Your task to perform on an android device: Go to accessibility settings Image 0: 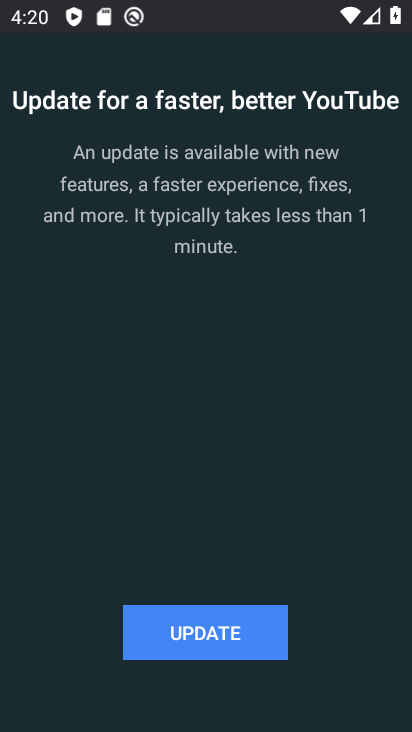
Step 0: press back button
Your task to perform on an android device: Go to accessibility settings Image 1: 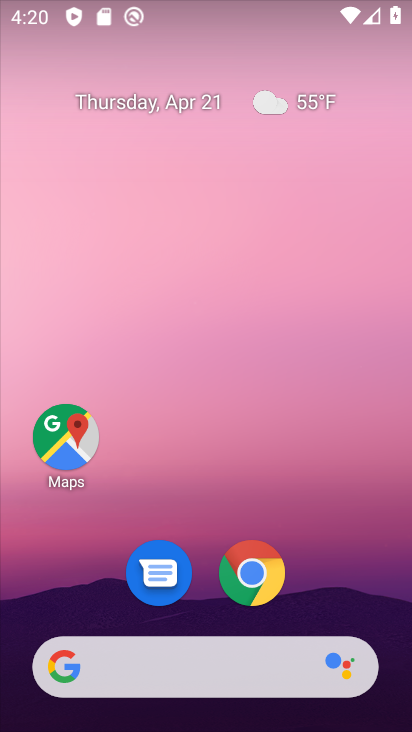
Step 1: drag from (376, 614) to (268, 122)
Your task to perform on an android device: Go to accessibility settings Image 2: 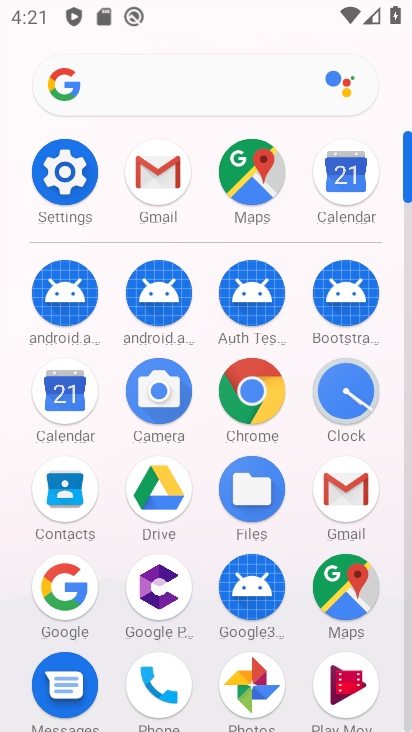
Step 2: click (409, 694)
Your task to perform on an android device: Go to accessibility settings Image 3: 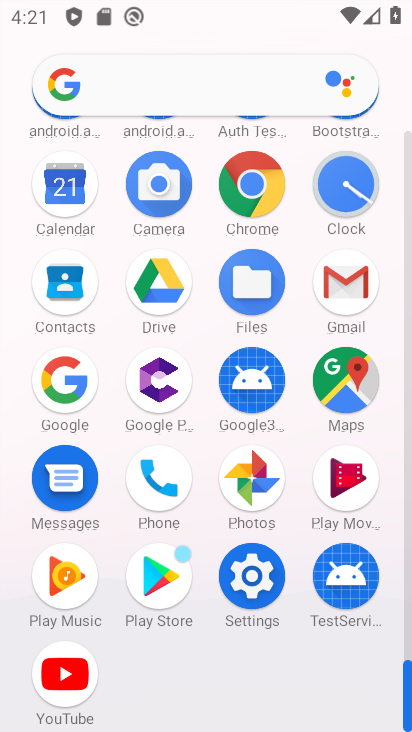
Step 3: click (253, 577)
Your task to perform on an android device: Go to accessibility settings Image 4: 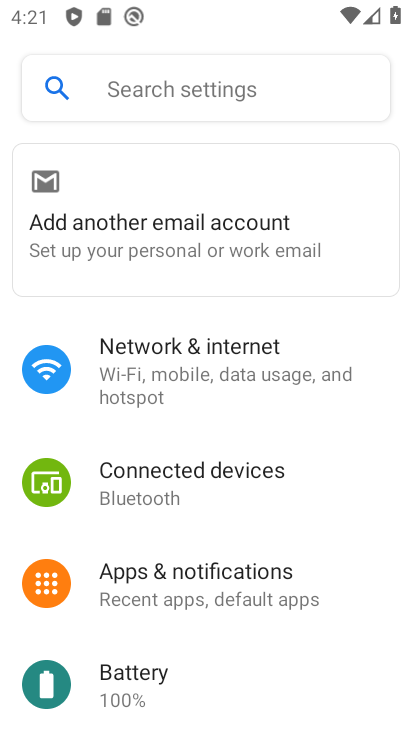
Step 4: drag from (336, 579) to (307, 245)
Your task to perform on an android device: Go to accessibility settings Image 5: 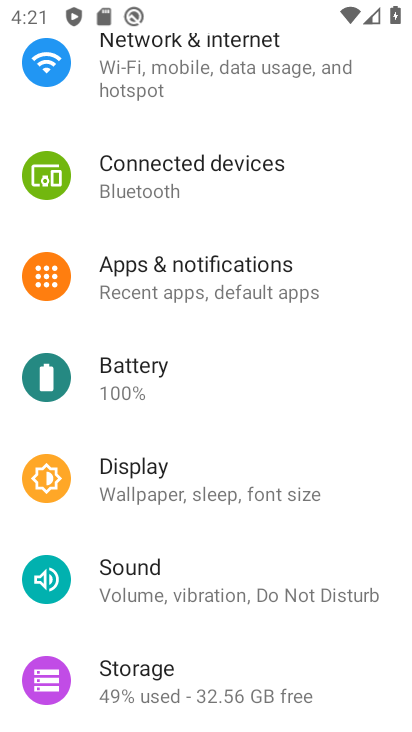
Step 5: drag from (326, 526) to (326, 326)
Your task to perform on an android device: Go to accessibility settings Image 6: 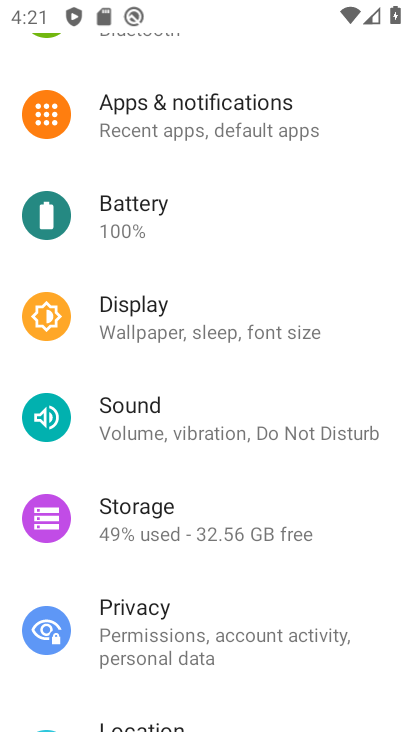
Step 6: drag from (339, 555) to (333, 291)
Your task to perform on an android device: Go to accessibility settings Image 7: 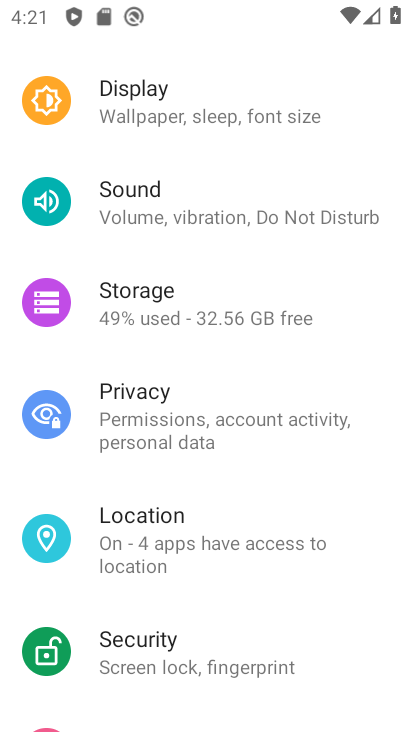
Step 7: drag from (318, 513) to (329, 256)
Your task to perform on an android device: Go to accessibility settings Image 8: 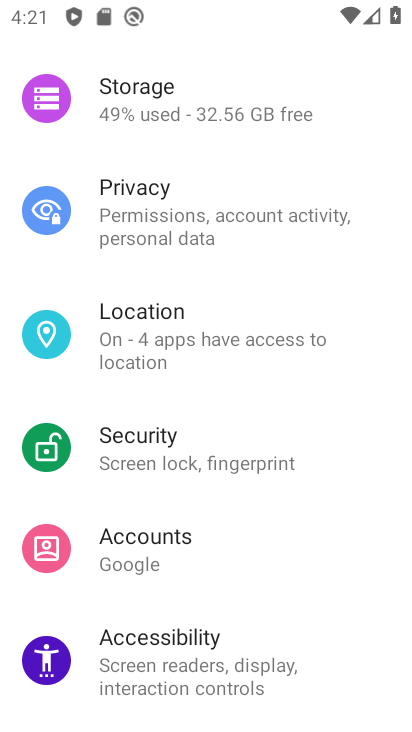
Step 8: drag from (311, 526) to (316, 280)
Your task to perform on an android device: Go to accessibility settings Image 9: 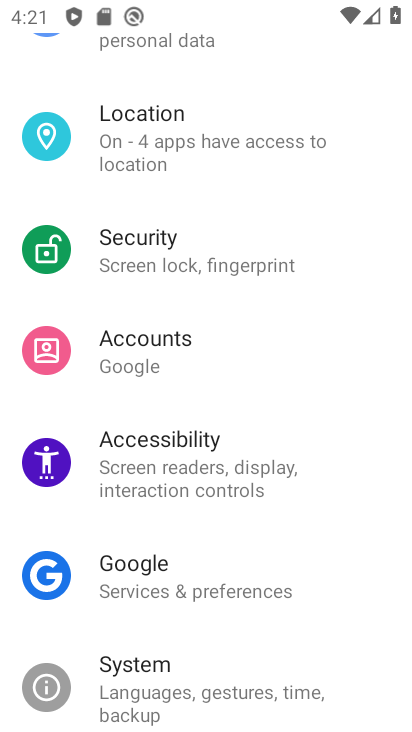
Step 9: click (138, 466)
Your task to perform on an android device: Go to accessibility settings Image 10: 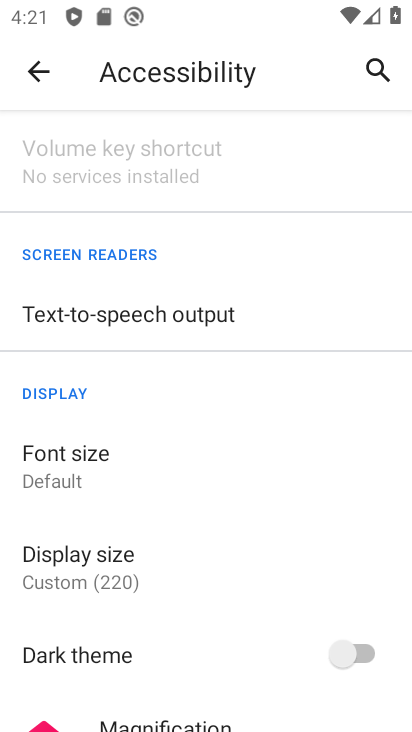
Step 10: task complete